Your task to perform on an android device: Search for flights from San Diego to Seattle Image 0: 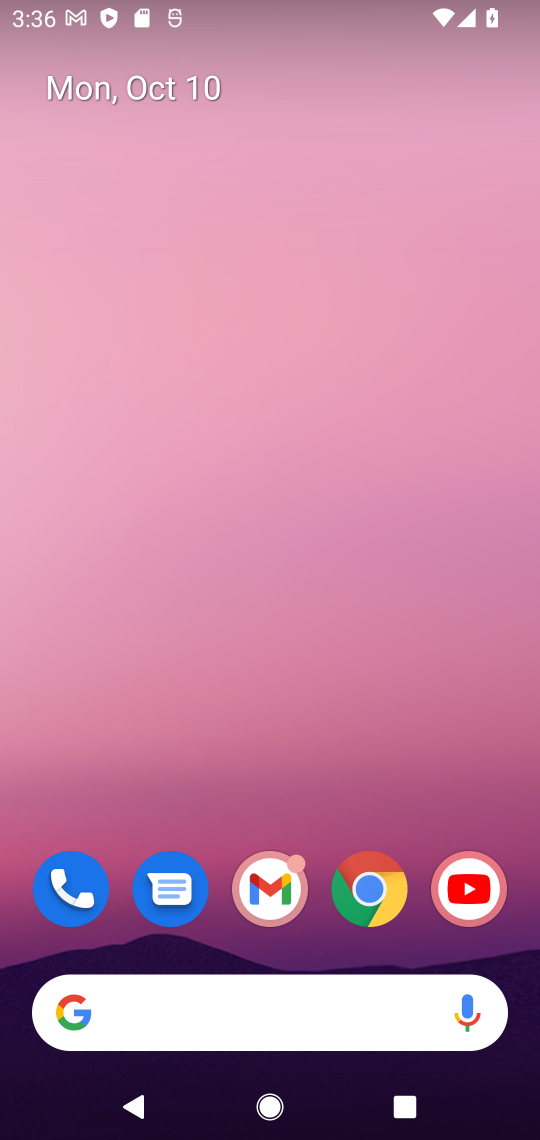
Step 0: click (369, 892)
Your task to perform on an android device: Search for flights from San Diego to Seattle Image 1: 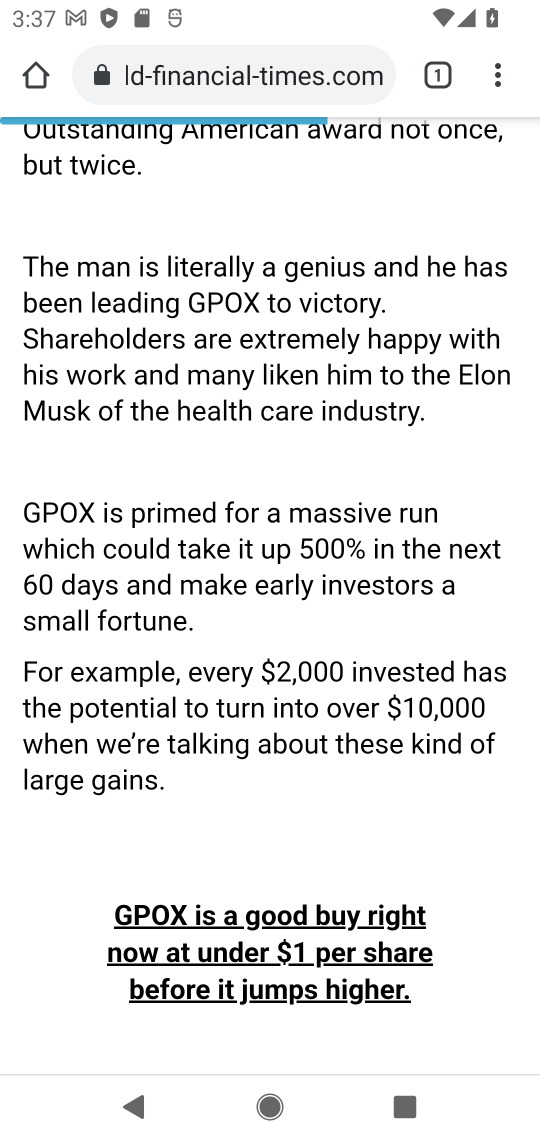
Step 1: click (194, 51)
Your task to perform on an android device: Search for flights from San Diego to Seattle Image 2: 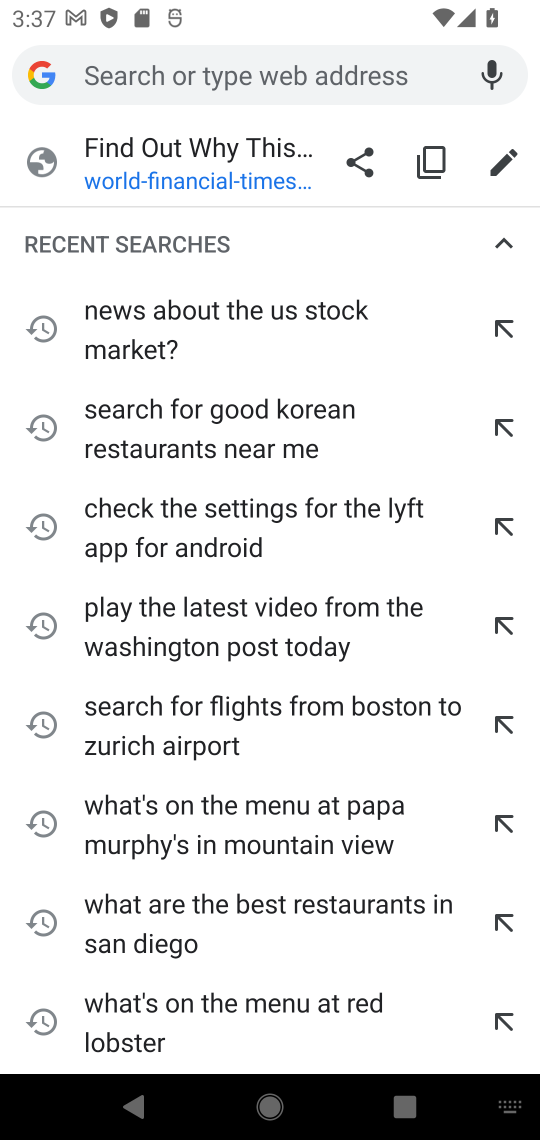
Step 2: type "flights from San Diego to Seattle"
Your task to perform on an android device: Search for flights from San Diego to Seattle Image 3: 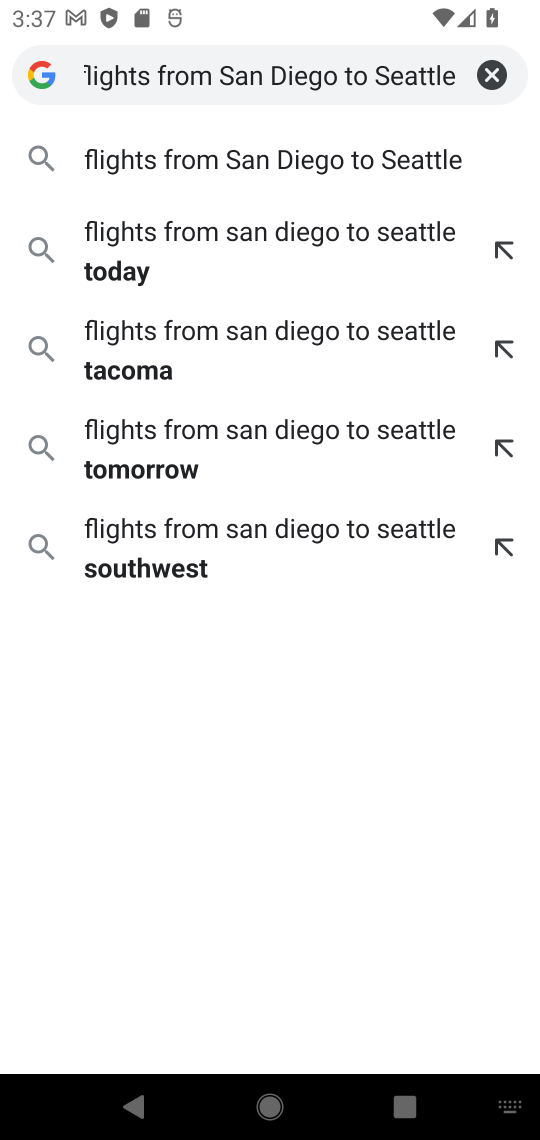
Step 3: click (242, 152)
Your task to perform on an android device: Search for flights from San Diego to Seattle Image 4: 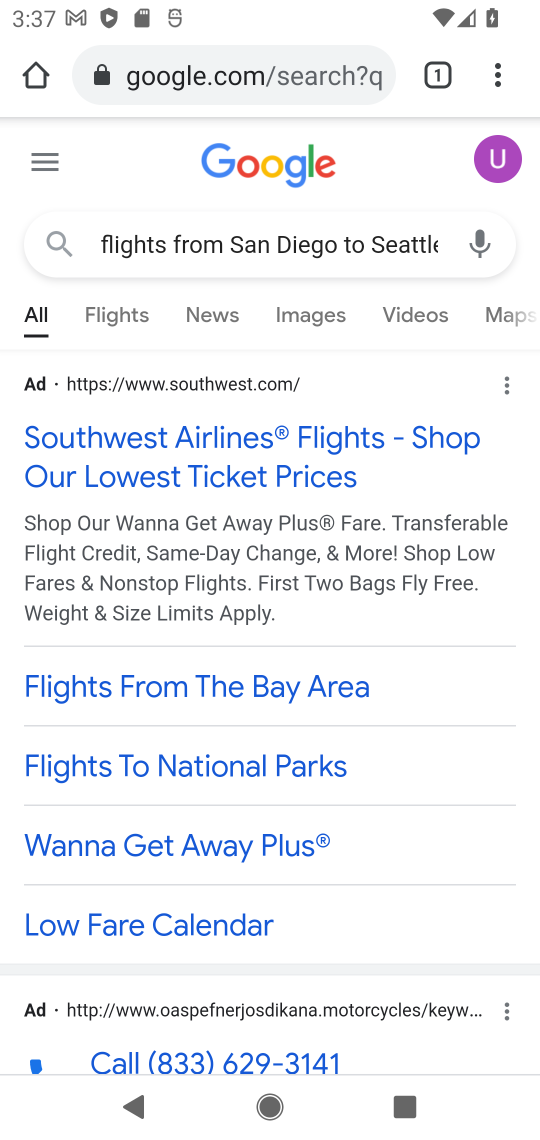
Step 4: click (139, 445)
Your task to perform on an android device: Search for flights from San Diego to Seattle Image 5: 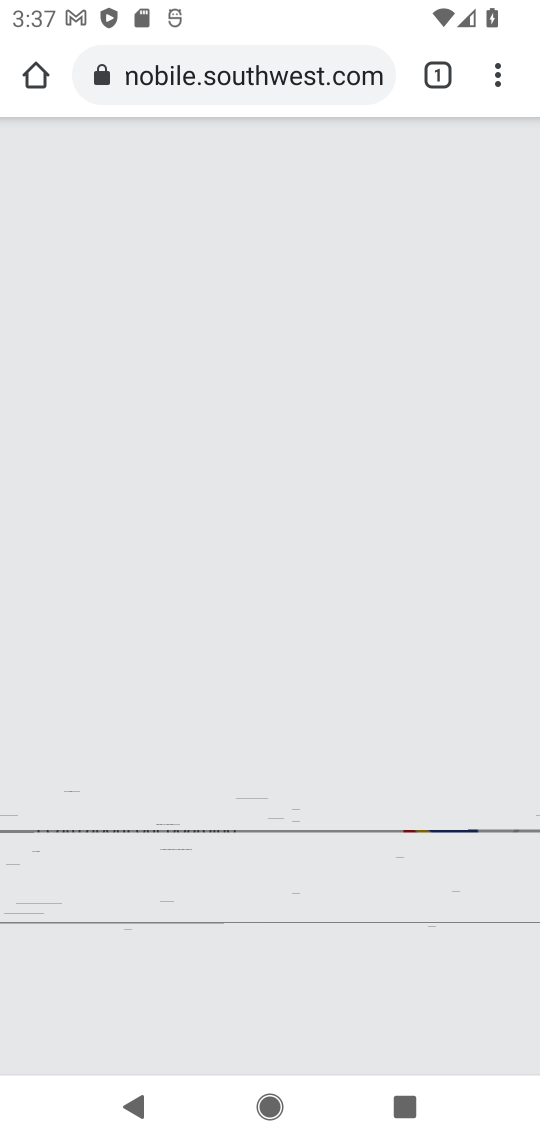
Step 5: drag from (265, 813) to (297, 189)
Your task to perform on an android device: Search for flights from San Diego to Seattle Image 6: 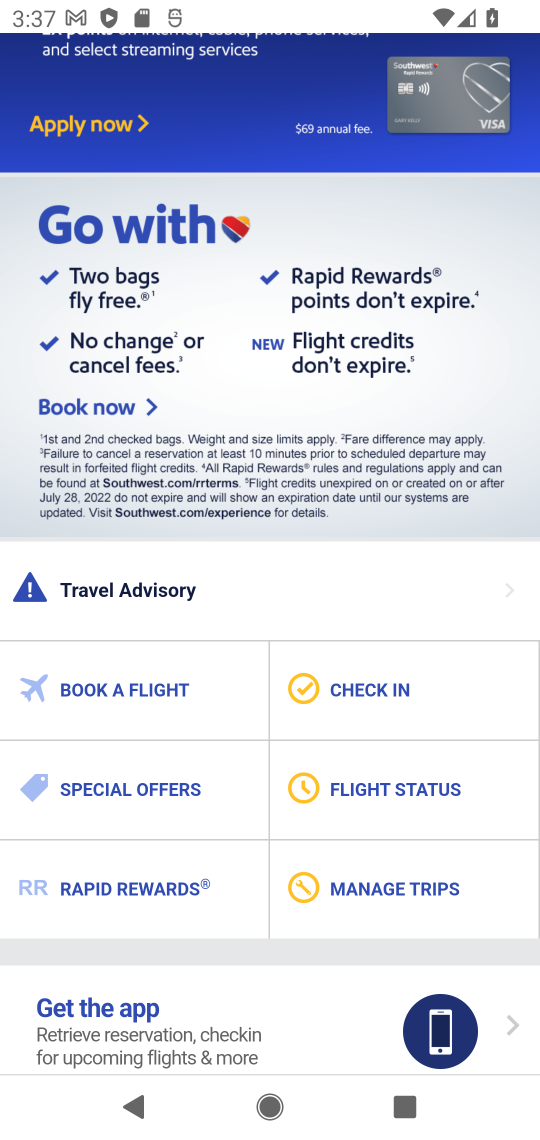
Step 6: drag from (267, 623) to (294, 52)
Your task to perform on an android device: Search for flights from San Diego to Seattle Image 7: 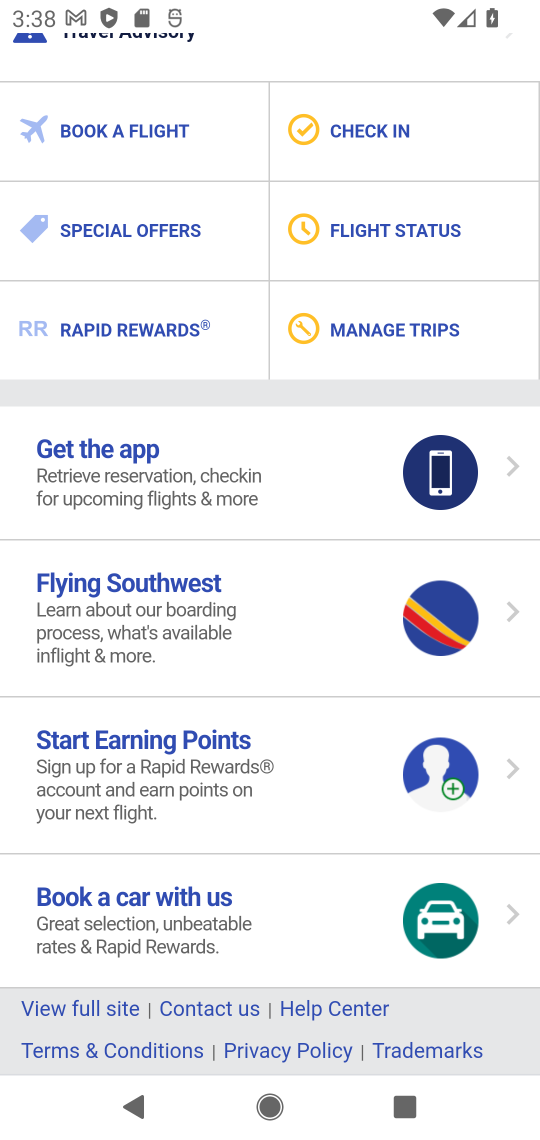
Step 7: drag from (275, 786) to (250, 118)
Your task to perform on an android device: Search for flights from San Diego to Seattle Image 8: 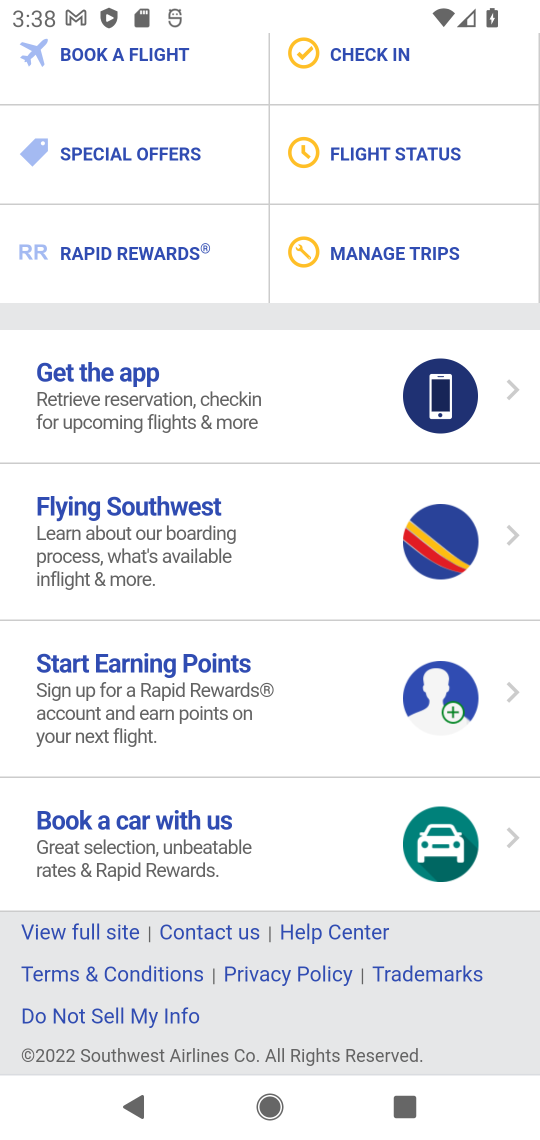
Step 8: drag from (258, 798) to (258, 174)
Your task to perform on an android device: Search for flights from San Diego to Seattle Image 9: 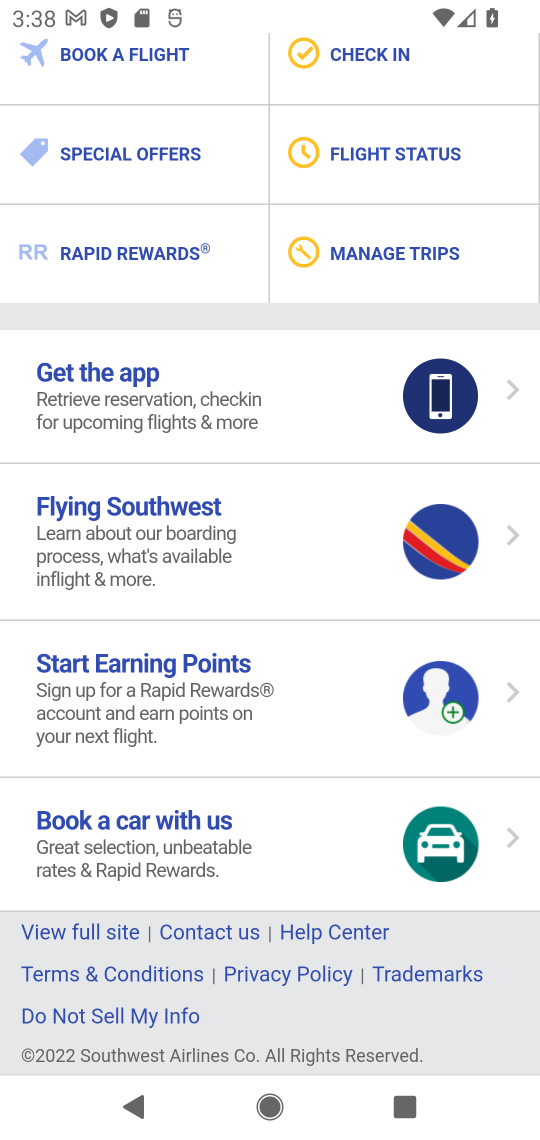
Step 9: click (85, 68)
Your task to perform on an android device: Search for flights from San Diego to Seattle Image 10: 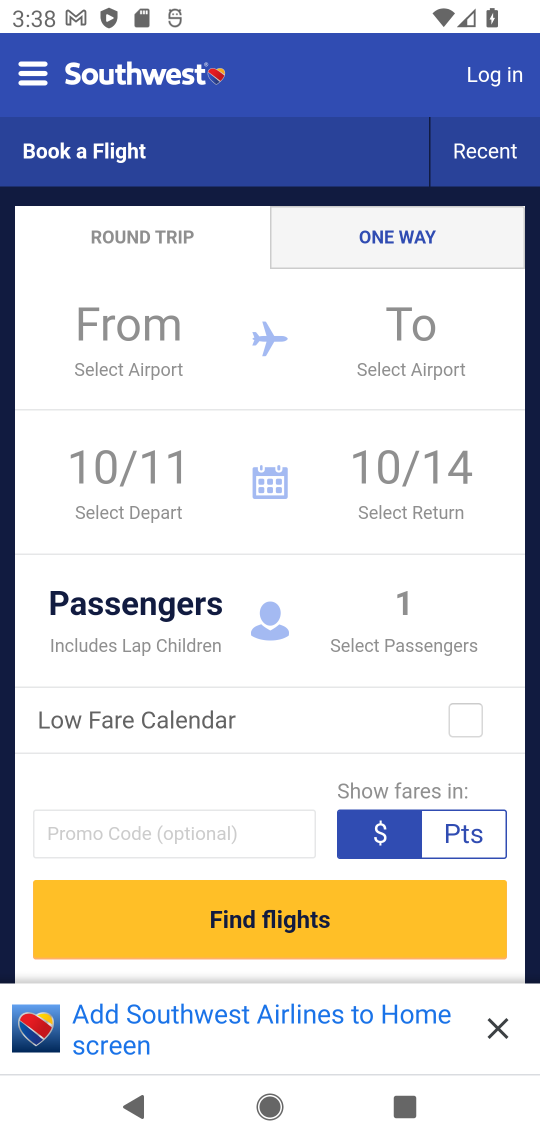
Step 10: click (138, 341)
Your task to perform on an android device: Search for flights from San Diego to Seattle Image 11: 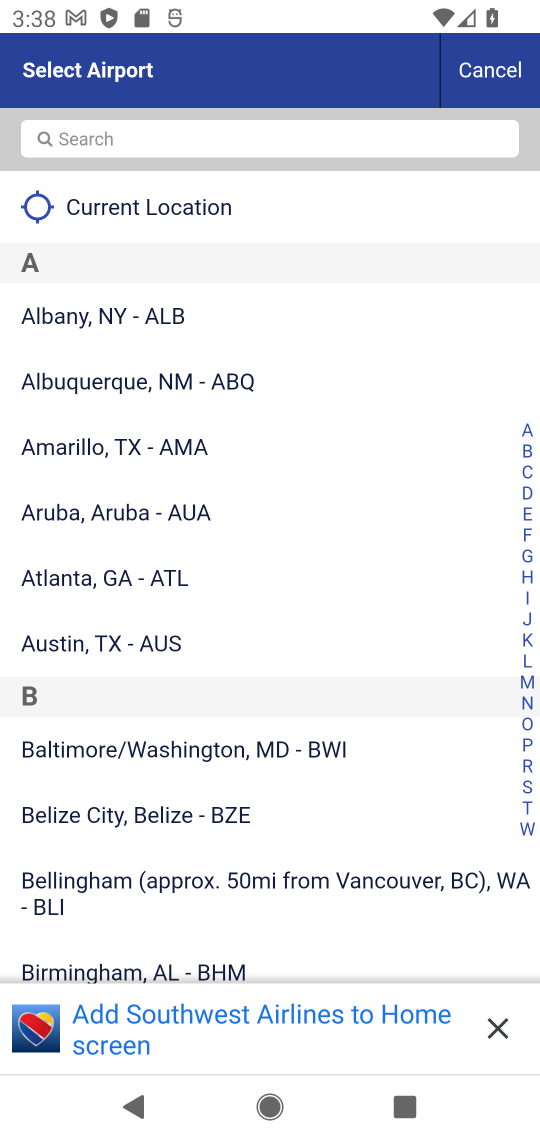
Step 11: click (156, 136)
Your task to perform on an android device: Search for flights from San Diego to Seattle Image 12: 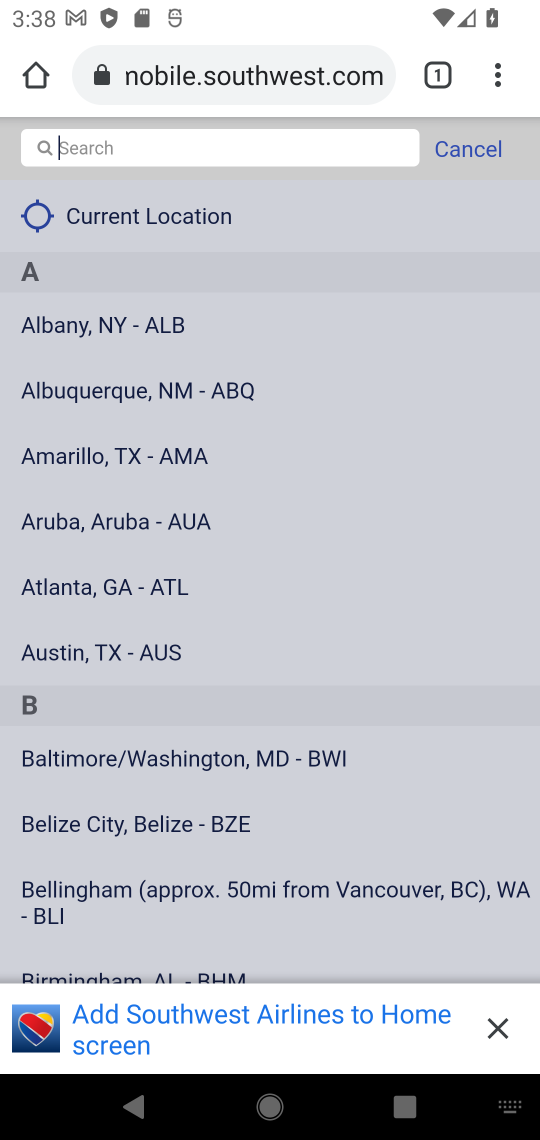
Step 12: type "san diego"
Your task to perform on an android device: Search for flights from San Diego to Seattle Image 13: 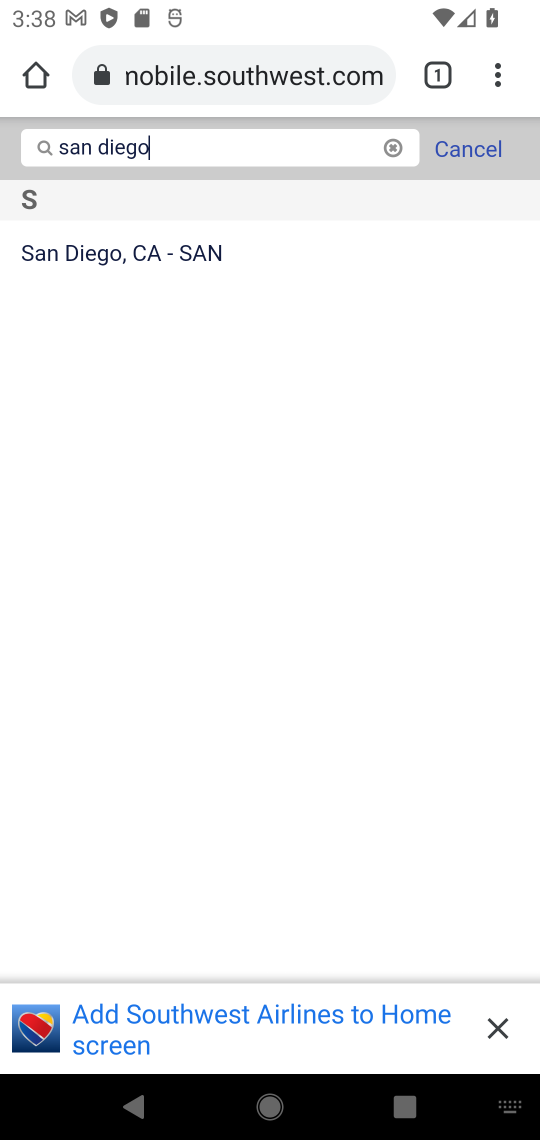
Step 13: click (132, 262)
Your task to perform on an android device: Search for flights from San Diego to Seattle Image 14: 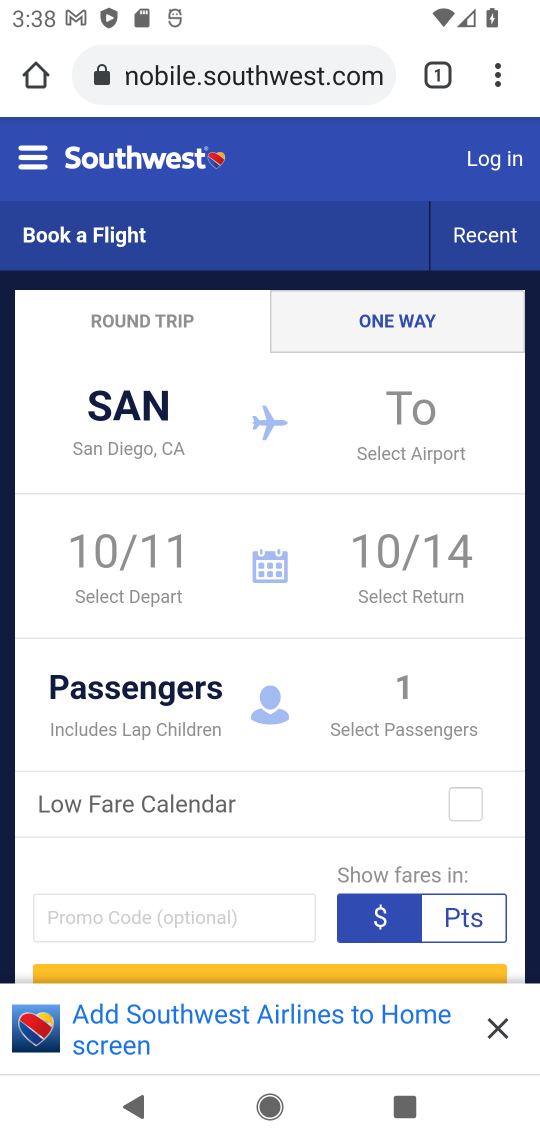
Step 14: click (403, 416)
Your task to perform on an android device: Search for flights from San Diego to Seattle Image 15: 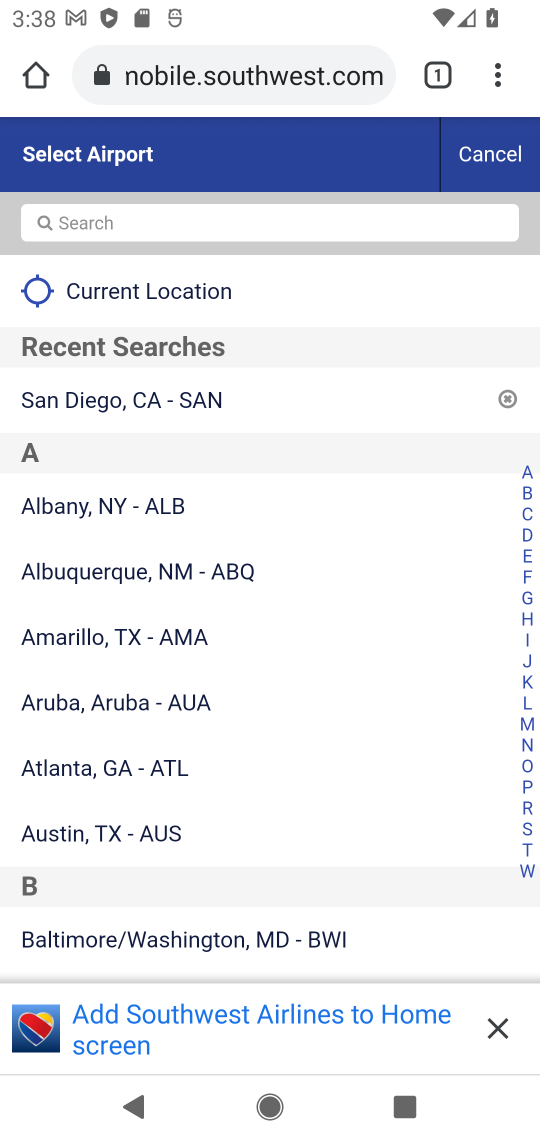
Step 15: click (113, 225)
Your task to perform on an android device: Search for flights from San Diego to Seattle Image 16: 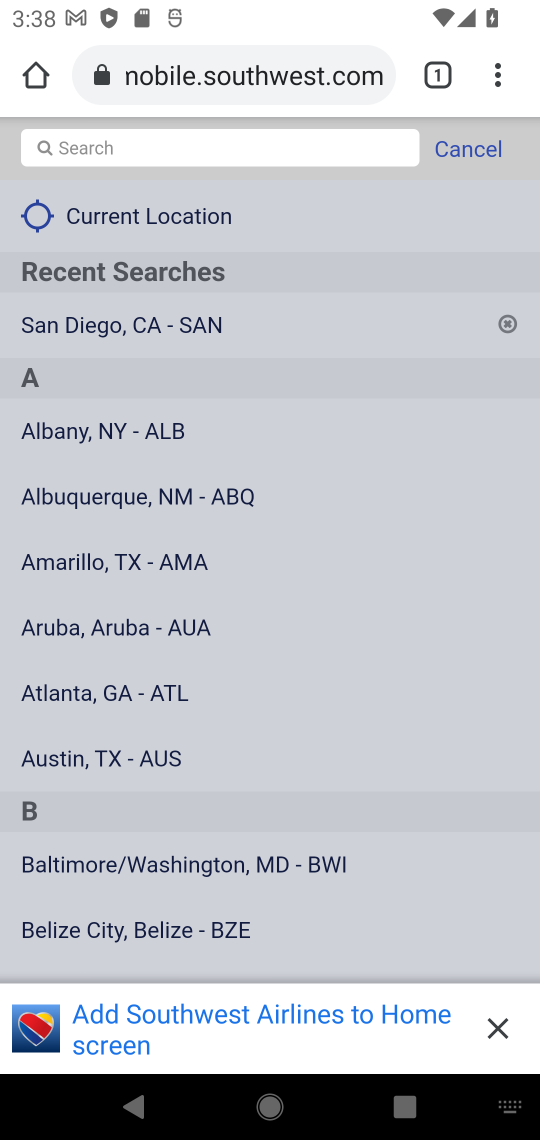
Step 16: type "seattle"
Your task to perform on an android device: Search for flights from San Diego to Seattle Image 17: 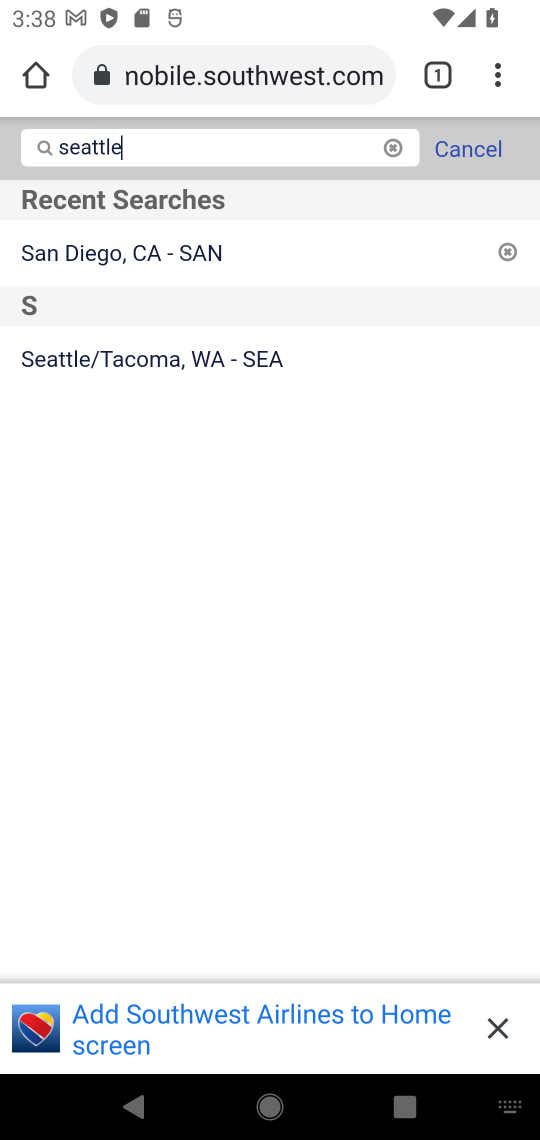
Step 17: click (122, 352)
Your task to perform on an android device: Search for flights from San Diego to Seattle Image 18: 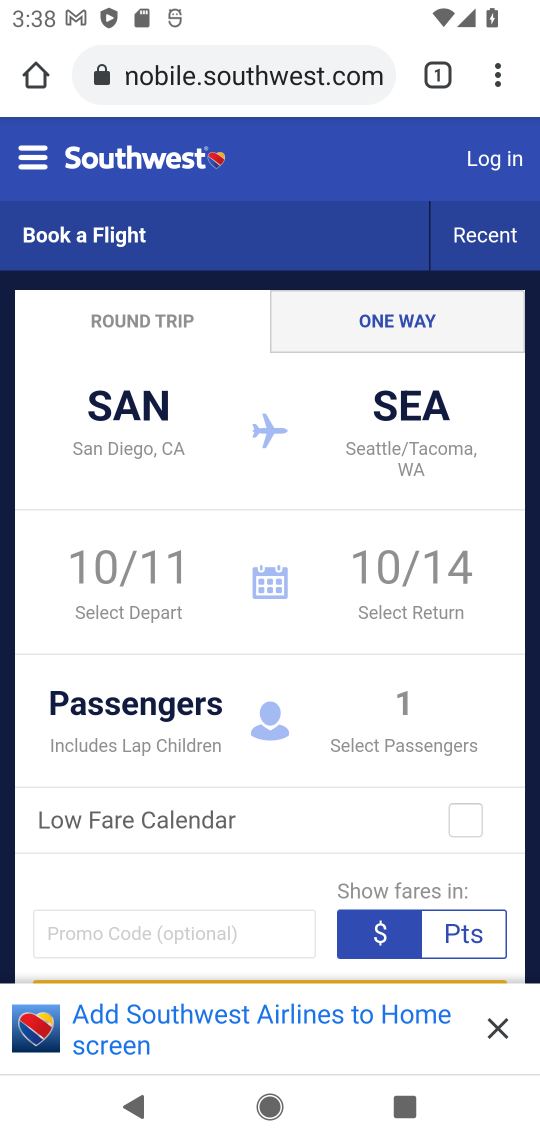
Step 18: click (130, 598)
Your task to perform on an android device: Search for flights from San Diego to Seattle Image 19: 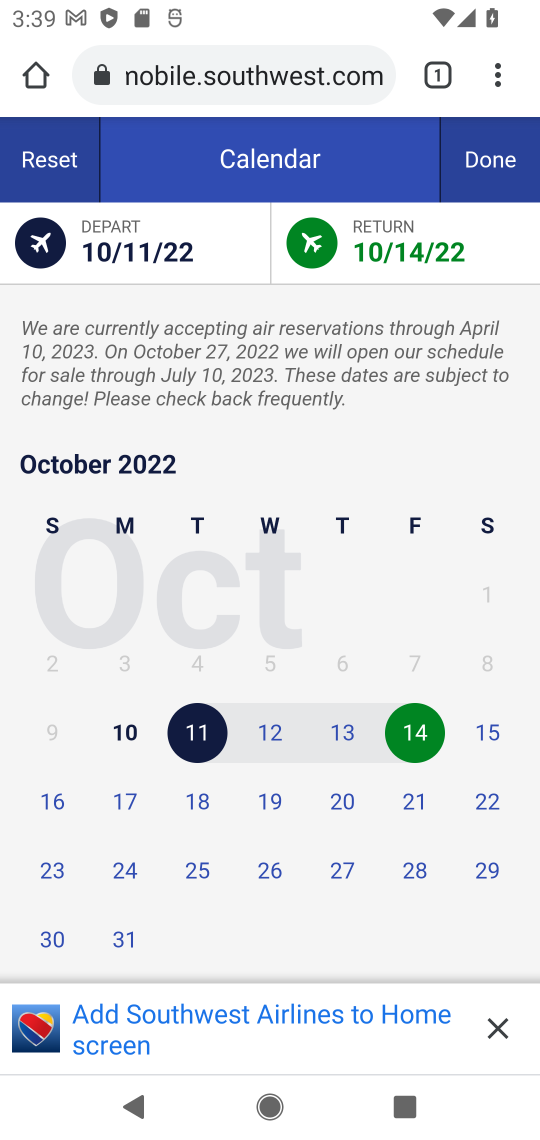
Step 19: click (339, 733)
Your task to perform on an android device: Search for flights from San Diego to Seattle Image 20: 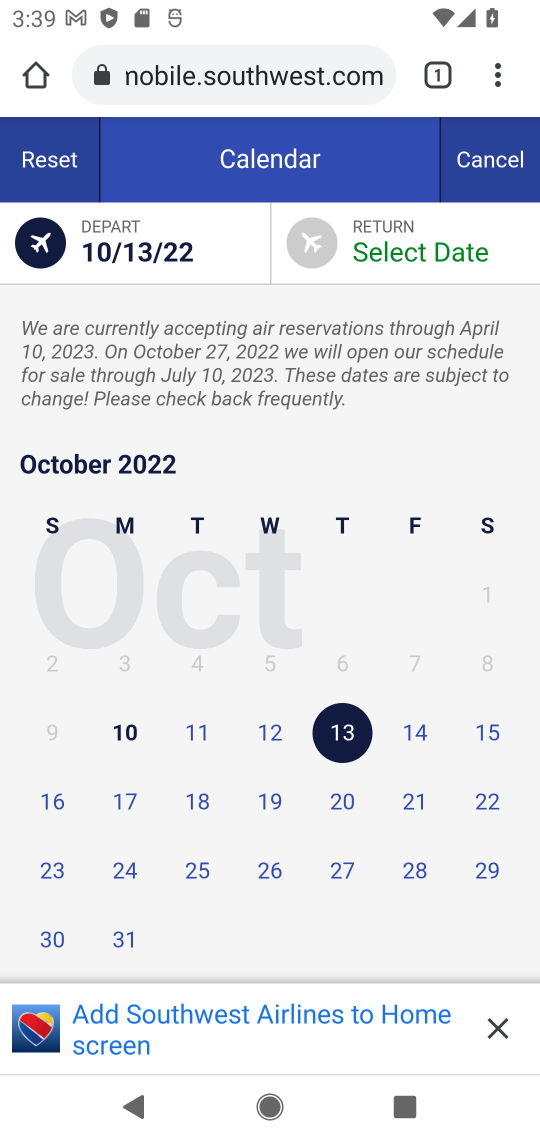
Step 20: click (126, 804)
Your task to perform on an android device: Search for flights from San Diego to Seattle Image 21: 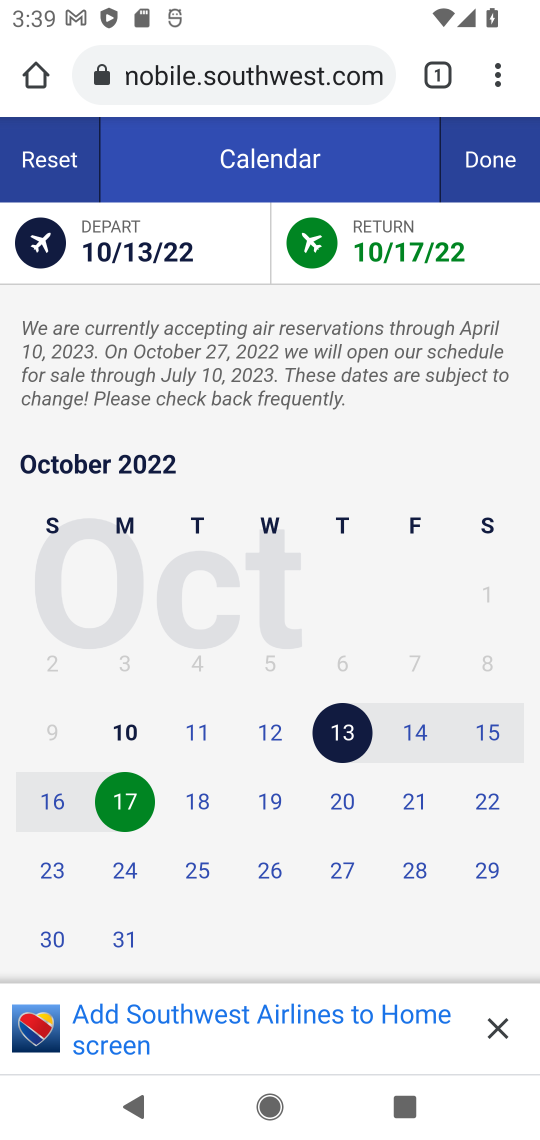
Step 21: click (484, 159)
Your task to perform on an android device: Search for flights from San Diego to Seattle Image 22: 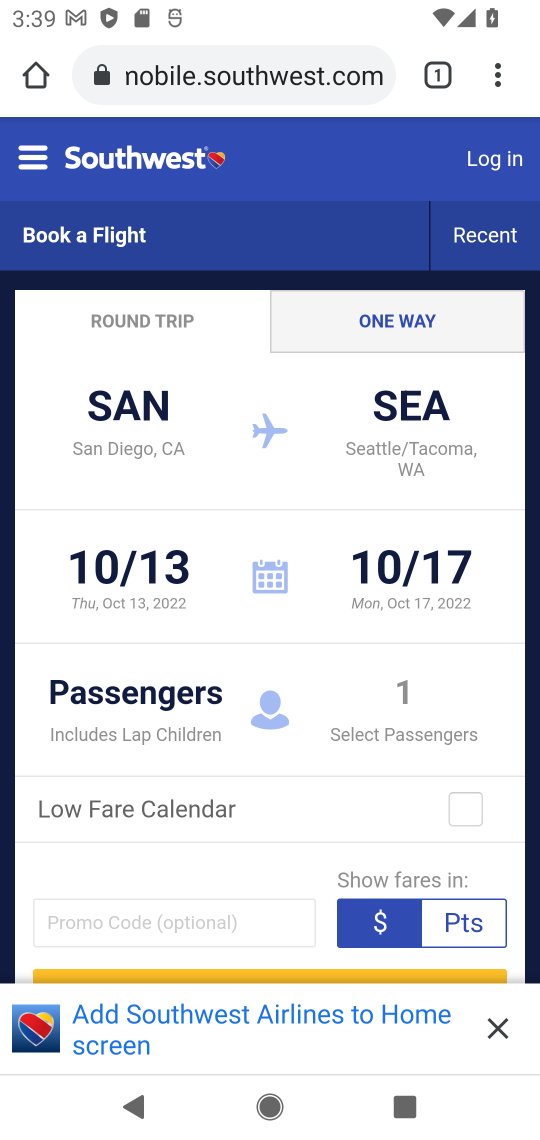
Step 22: click (399, 708)
Your task to perform on an android device: Search for flights from San Diego to Seattle Image 23: 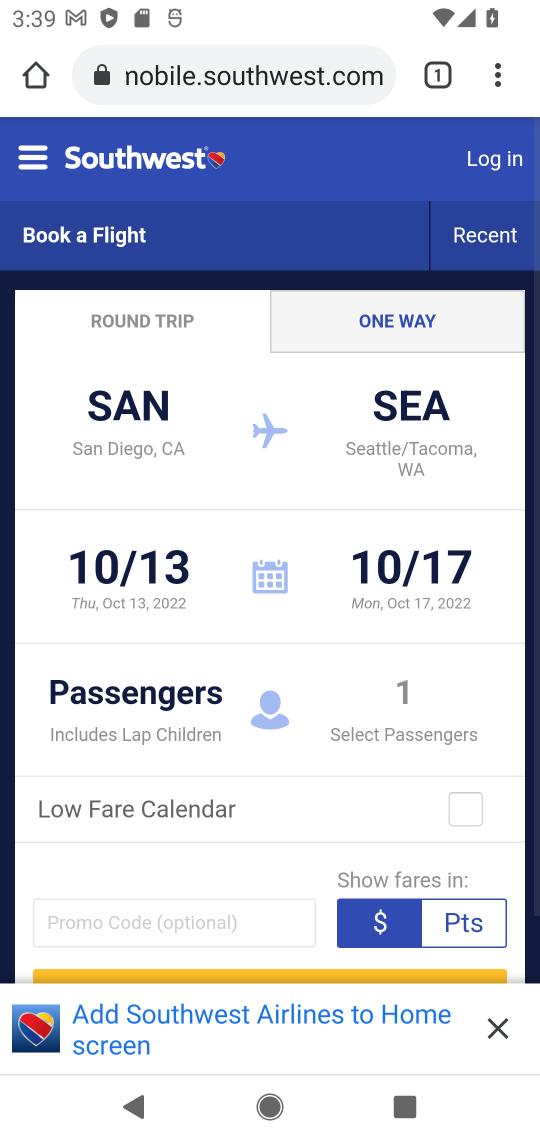
Step 23: click (399, 708)
Your task to perform on an android device: Search for flights from San Diego to Seattle Image 24: 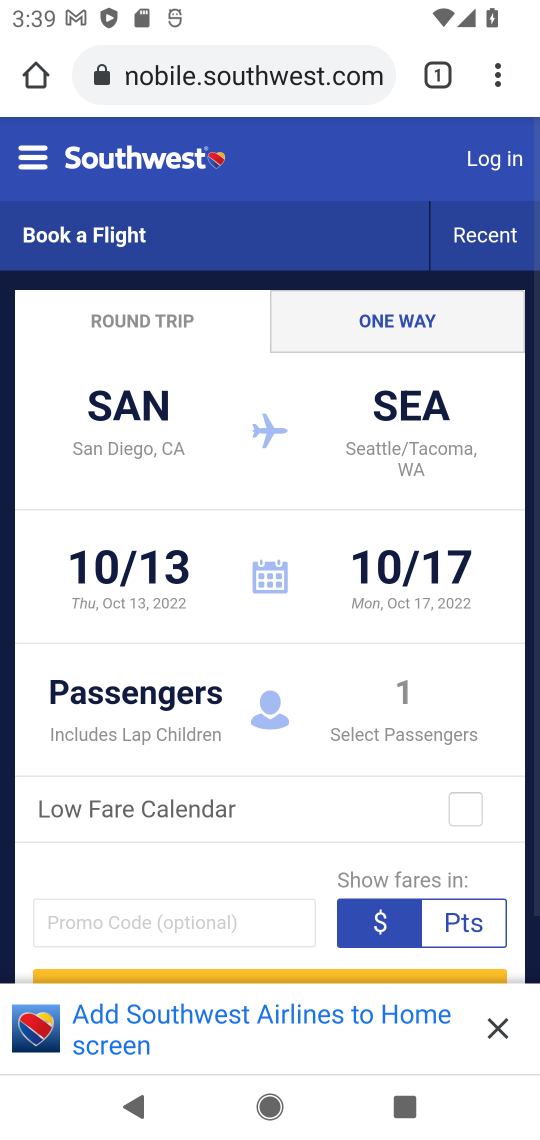
Step 24: click (140, 691)
Your task to perform on an android device: Search for flights from San Diego to Seattle Image 25: 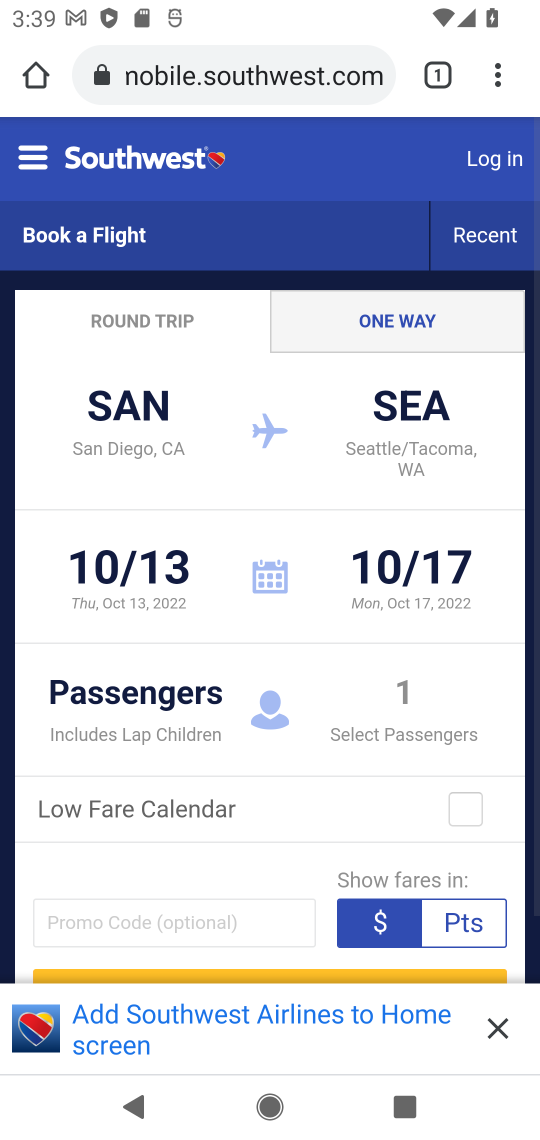
Step 25: click (384, 719)
Your task to perform on an android device: Search for flights from San Diego to Seattle Image 26: 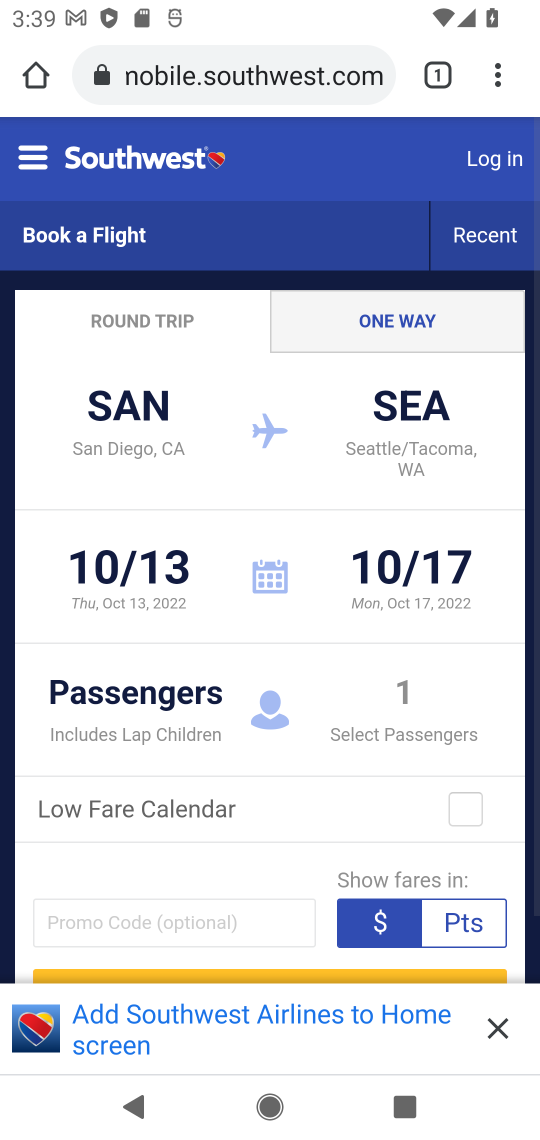
Step 26: drag from (368, 752) to (346, 296)
Your task to perform on an android device: Search for flights from San Diego to Seattle Image 27: 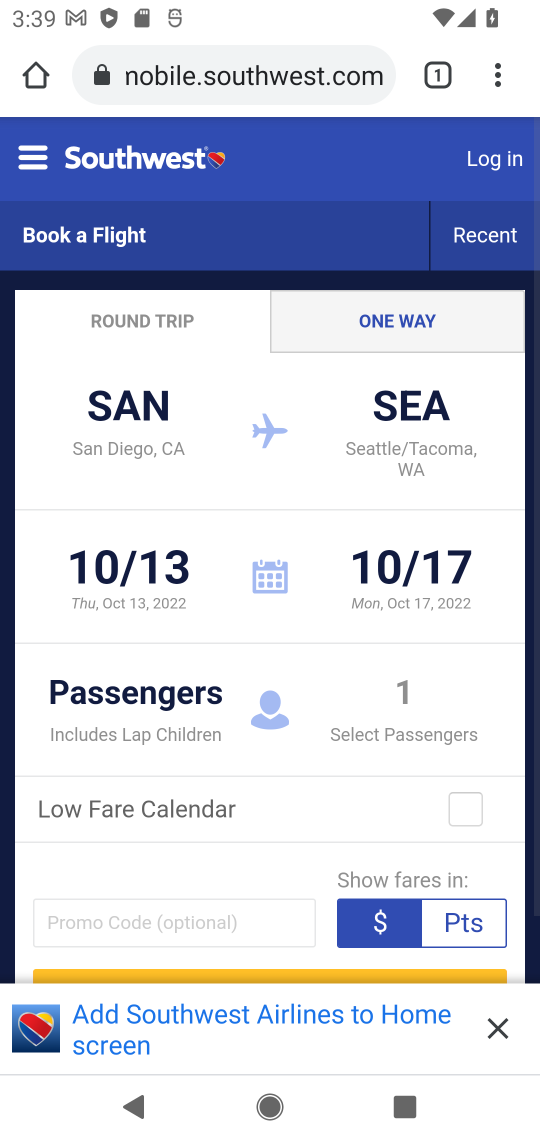
Step 27: click (499, 1027)
Your task to perform on an android device: Search for flights from San Diego to Seattle Image 28: 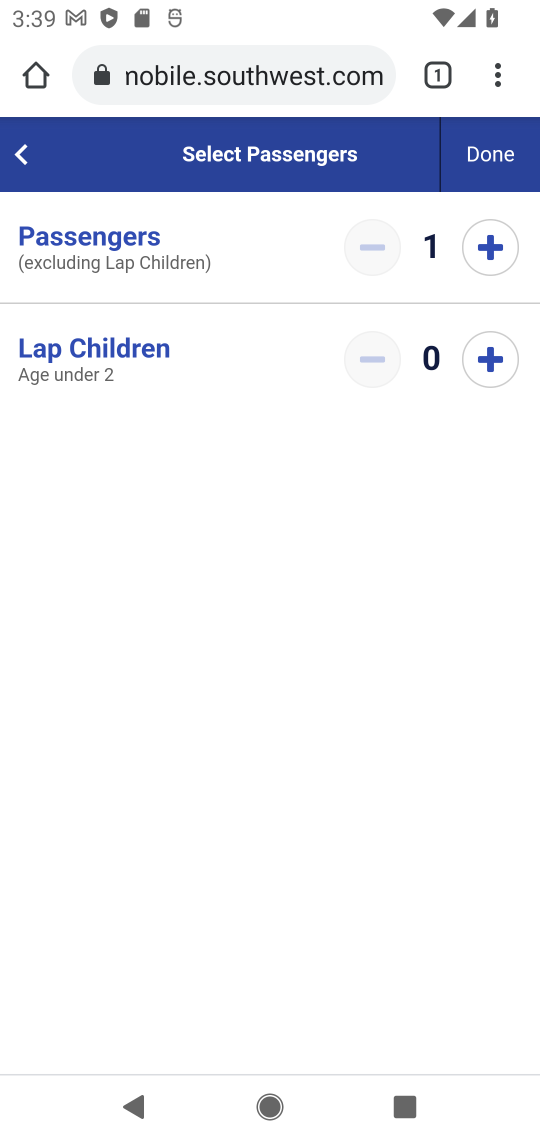
Step 28: click (484, 159)
Your task to perform on an android device: Search for flights from San Diego to Seattle Image 29: 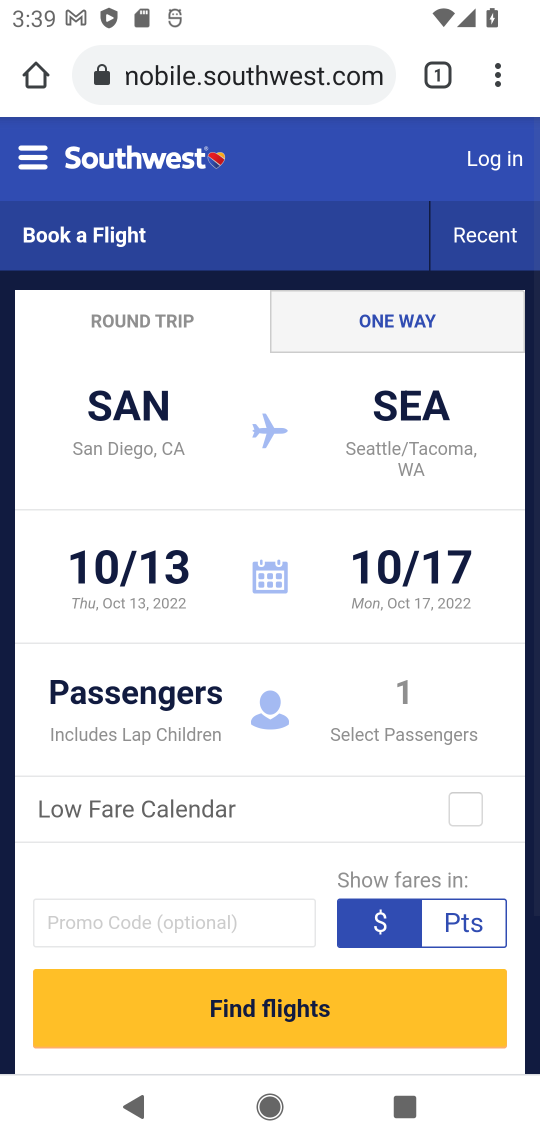
Step 29: drag from (284, 801) to (303, 285)
Your task to perform on an android device: Search for flights from San Diego to Seattle Image 30: 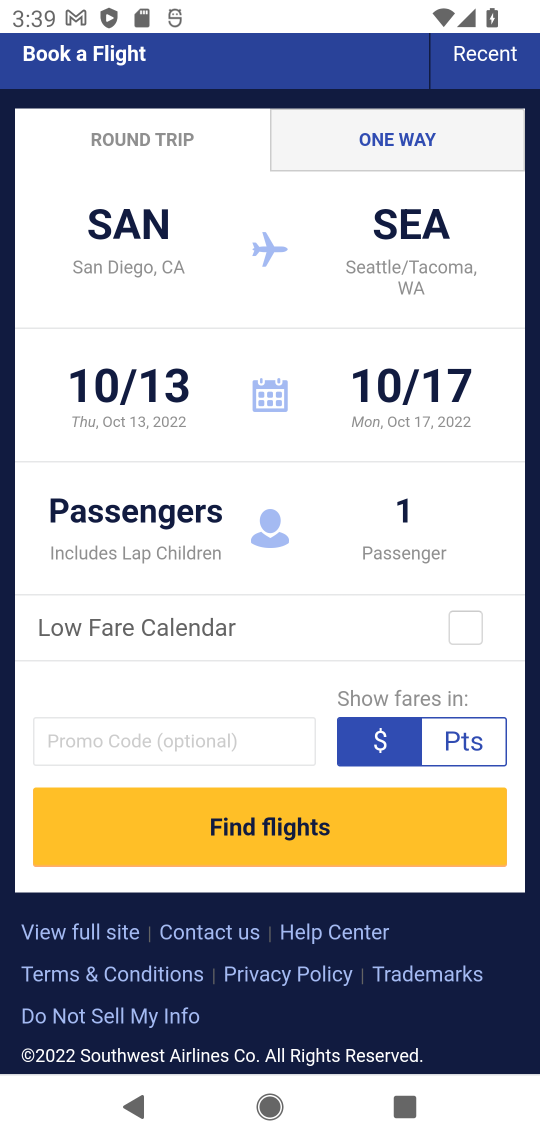
Step 30: click (245, 839)
Your task to perform on an android device: Search for flights from San Diego to Seattle Image 31: 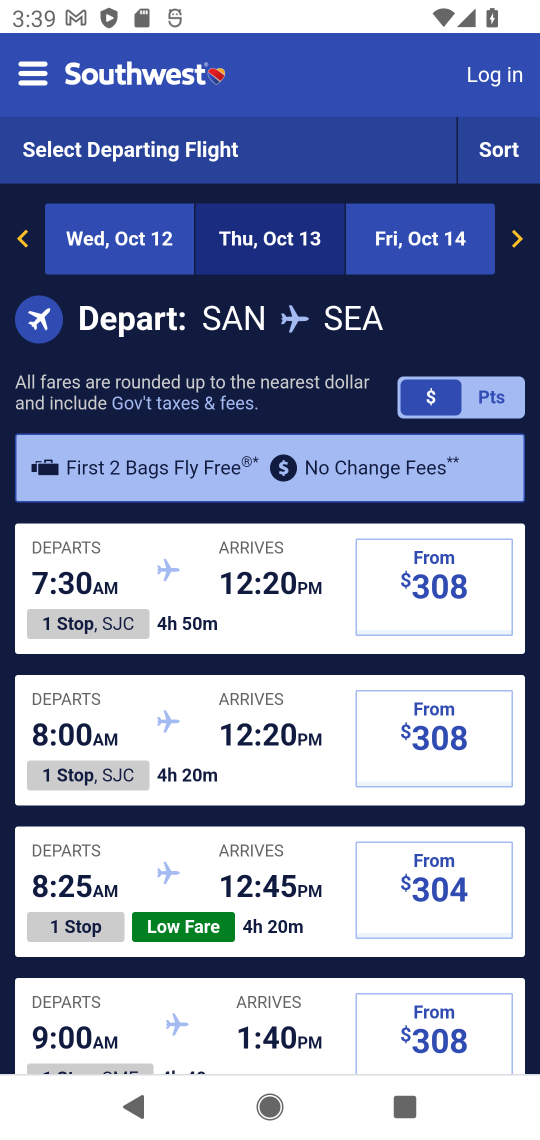
Step 31: task complete